Your task to perform on an android device: set default search engine in the chrome app Image 0: 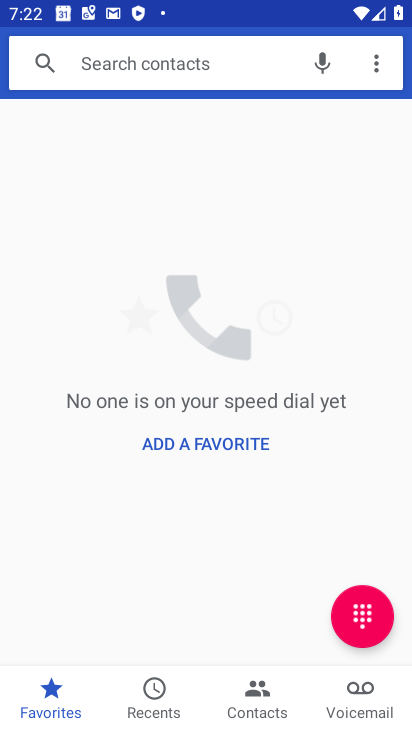
Step 0: press home button
Your task to perform on an android device: set default search engine in the chrome app Image 1: 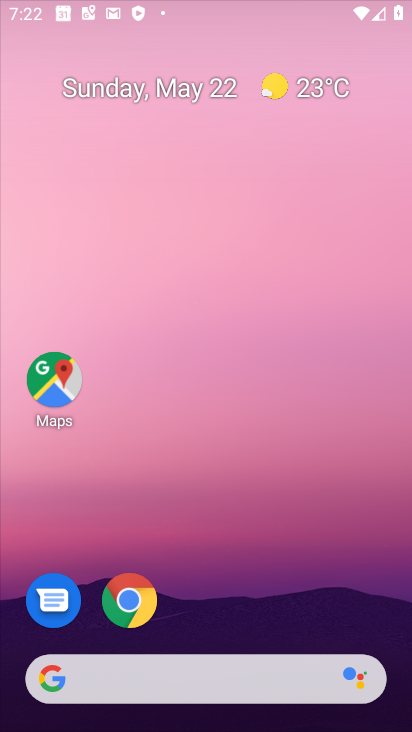
Step 1: drag from (375, 613) to (293, 23)
Your task to perform on an android device: set default search engine in the chrome app Image 2: 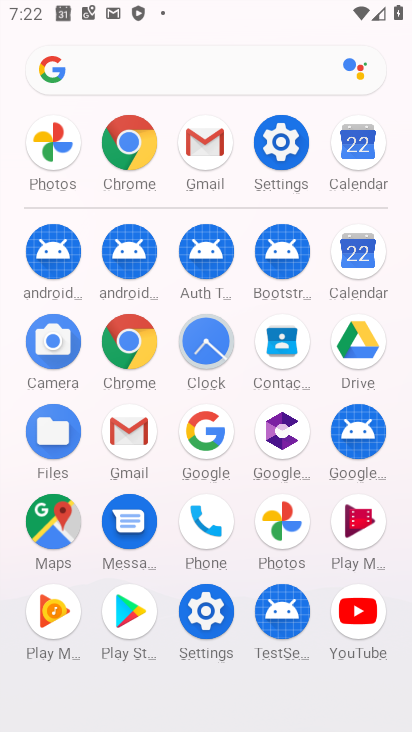
Step 2: click (130, 345)
Your task to perform on an android device: set default search engine in the chrome app Image 3: 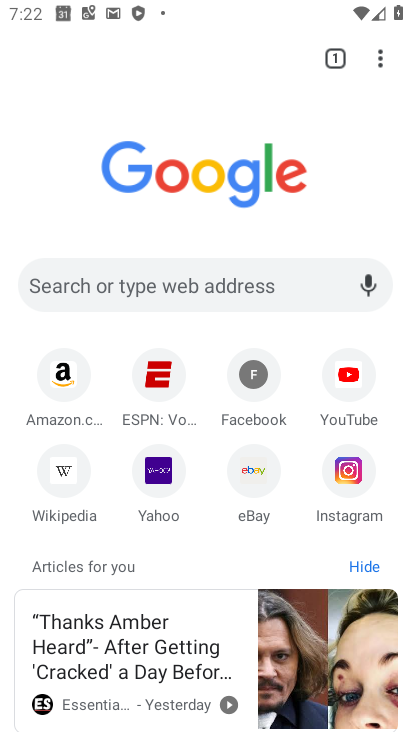
Step 3: click (374, 62)
Your task to perform on an android device: set default search engine in the chrome app Image 4: 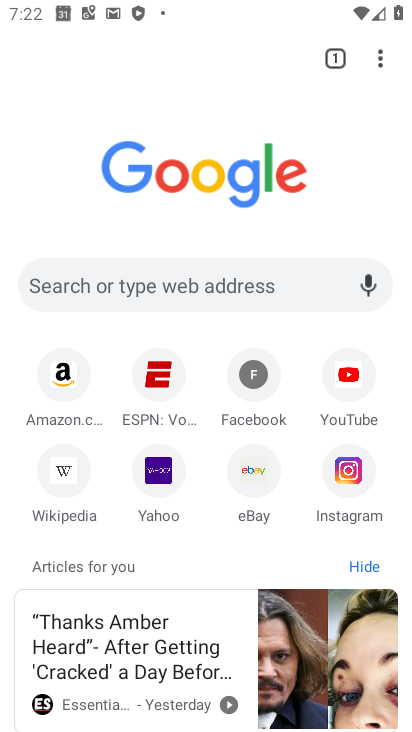
Step 4: click (380, 53)
Your task to perform on an android device: set default search engine in the chrome app Image 5: 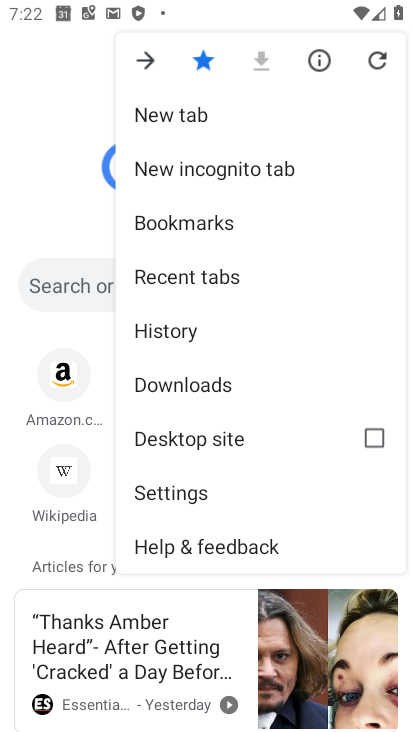
Step 5: click (190, 482)
Your task to perform on an android device: set default search engine in the chrome app Image 6: 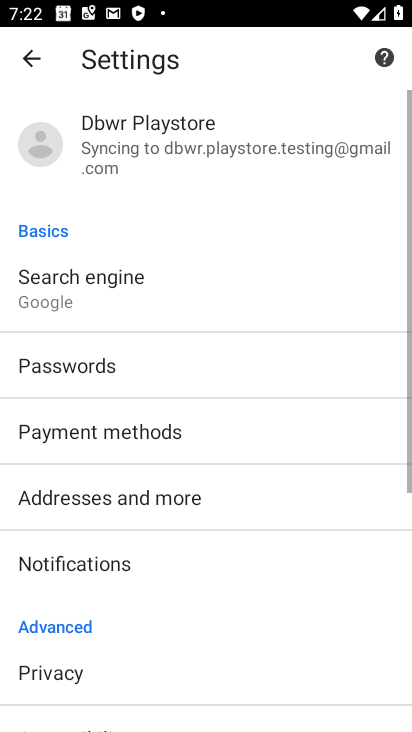
Step 6: click (57, 294)
Your task to perform on an android device: set default search engine in the chrome app Image 7: 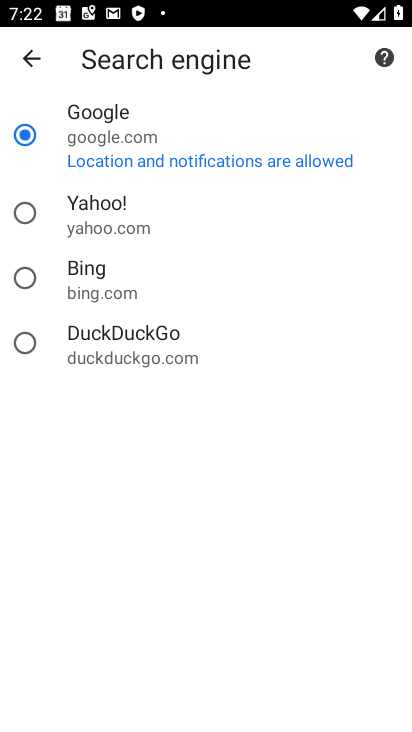
Step 7: click (60, 281)
Your task to perform on an android device: set default search engine in the chrome app Image 8: 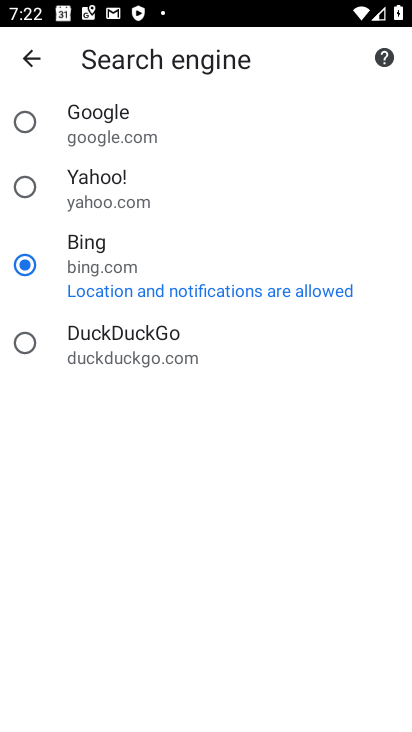
Step 8: task complete